Your task to perform on an android device: Open my contact list Image 0: 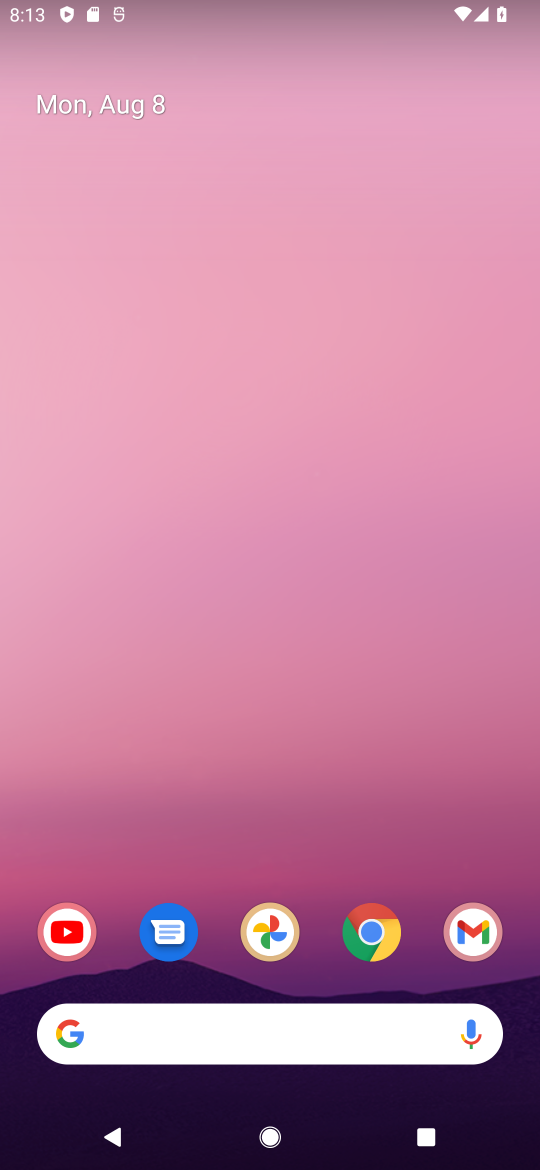
Step 0: drag from (178, 966) to (238, 50)
Your task to perform on an android device: Open my contact list Image 1: 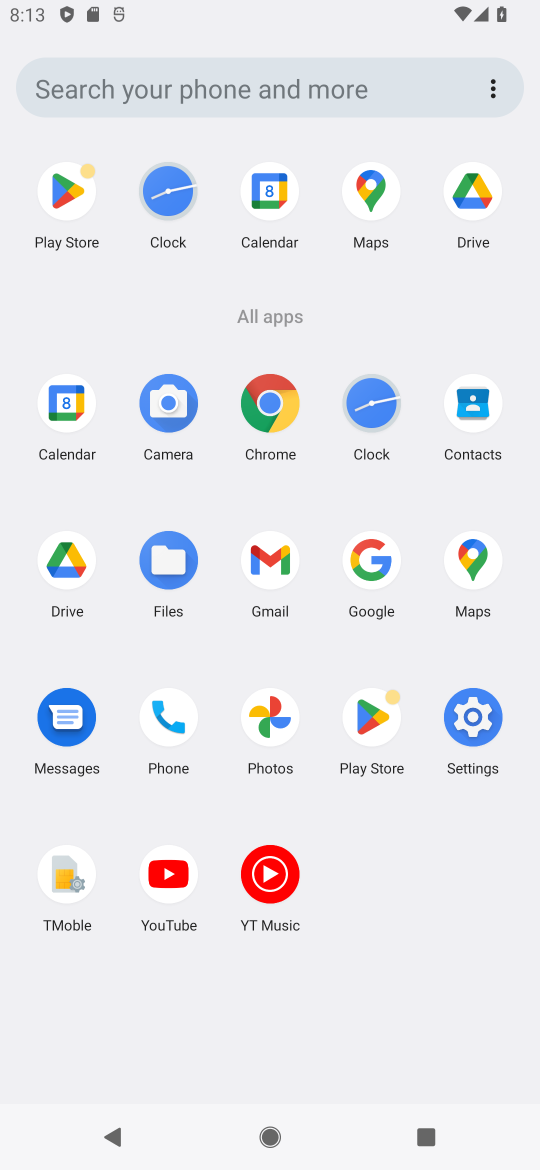
Step 1: click (482, 408)
Your task to perform on an android device: Open my contact list Image 2: 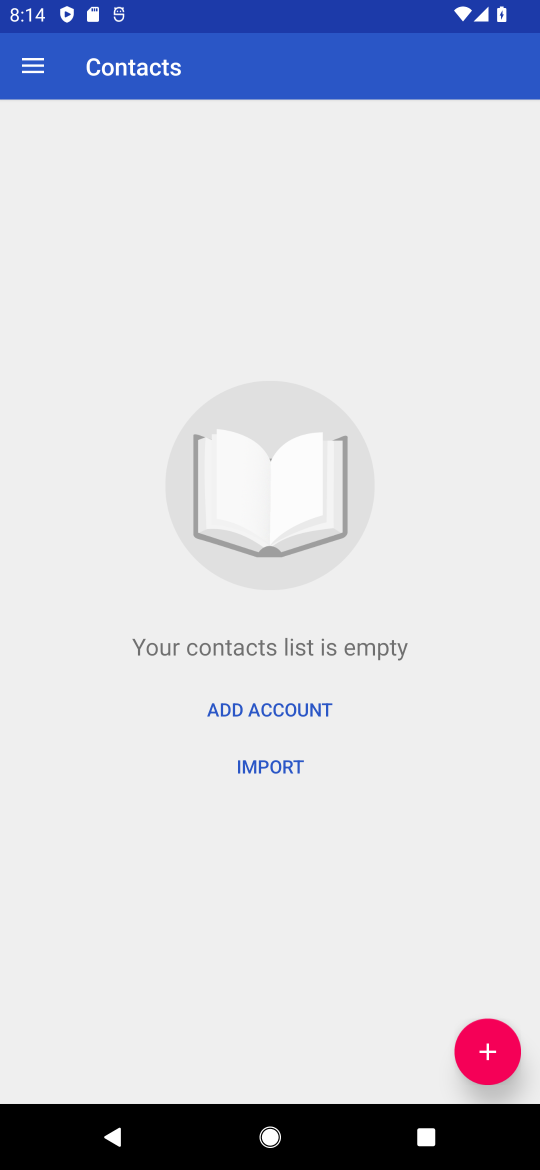
Step 2: task complete